Your task to perform on an android device: Check out the top rated books on Goodreads. Image 0: 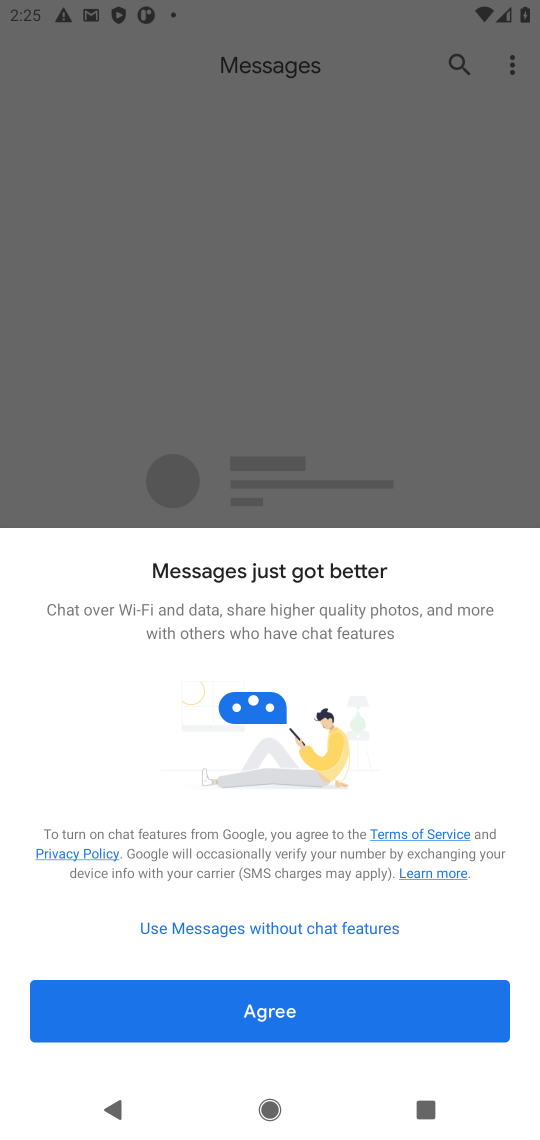
Step 0: press home button
Your task to perform on an android device: Check out the top rated books on Goodreads. Image 1: 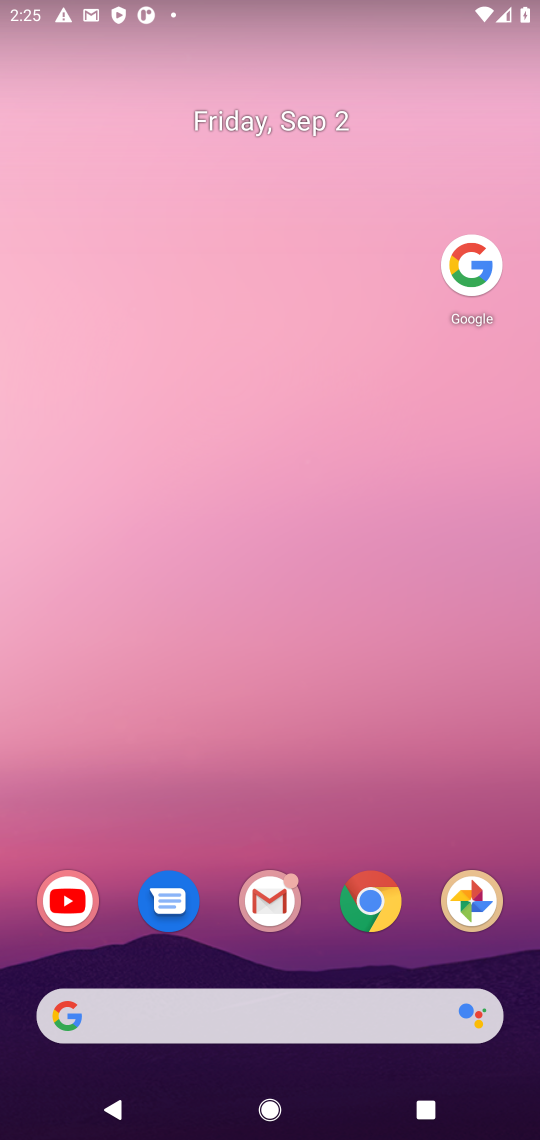
Step 1: click (465, 240)
Your task to perform on an android device: Check out the top rated books on Goodreads. Image 2: 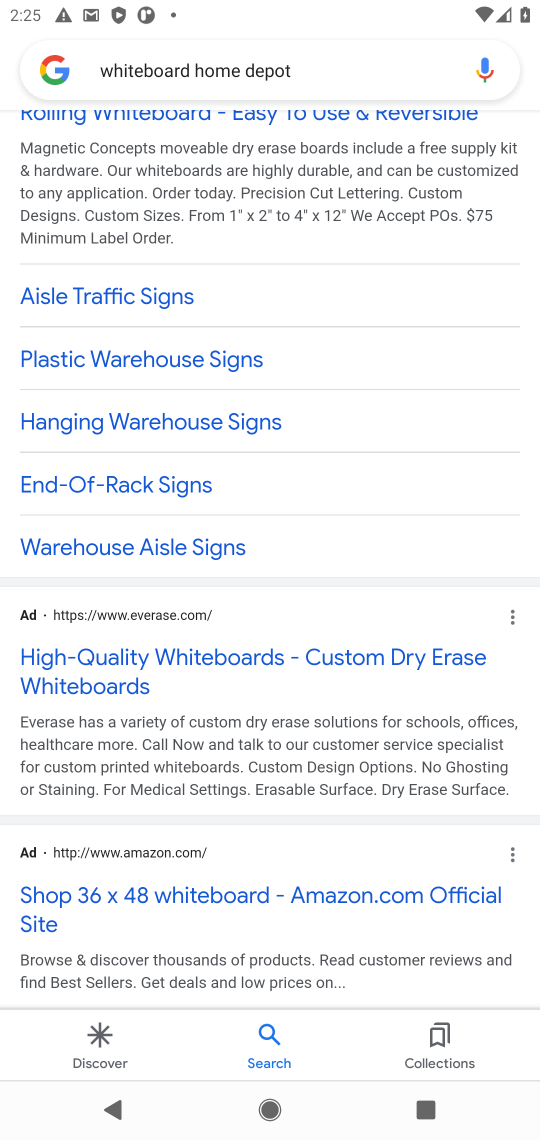
Step 2: click (321, 52)
Your task to perform on an android device: Check out the top rated books on Goodreads. Image 3: 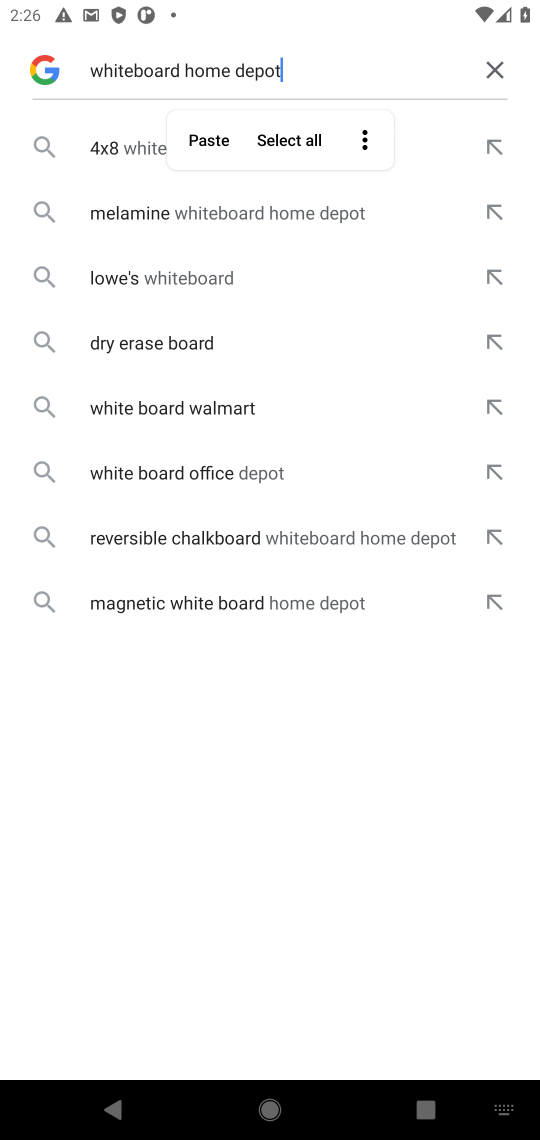
Step 3: click (490, 73)
Your task to perform on an android device: Check out the top rated books on Goodreads. Image 4: 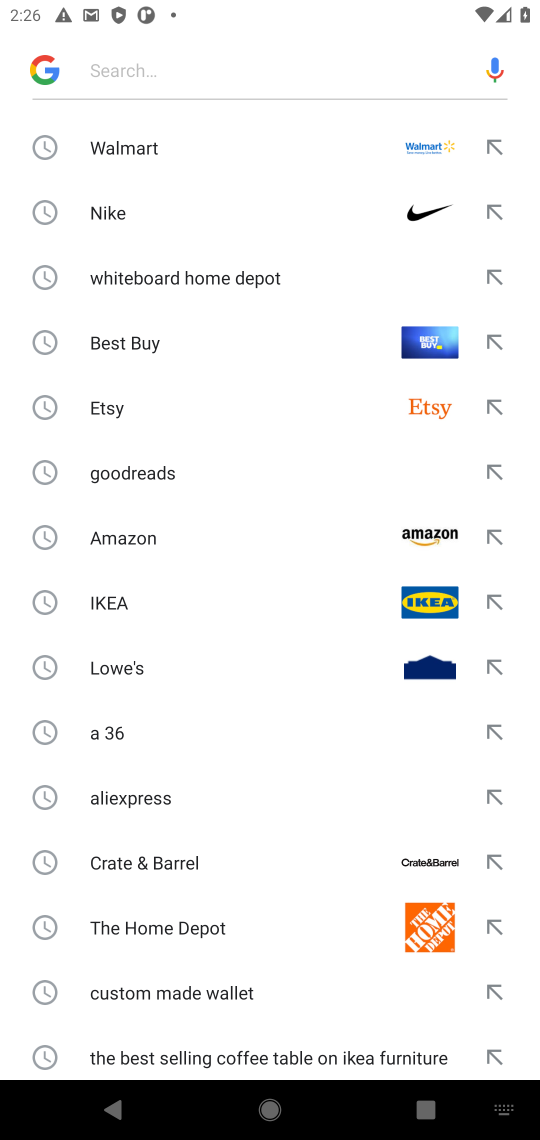
Step 4: click (173, 44)
Your task to perform on an android device: Check out the top rated books on Goodreads. Image 5: 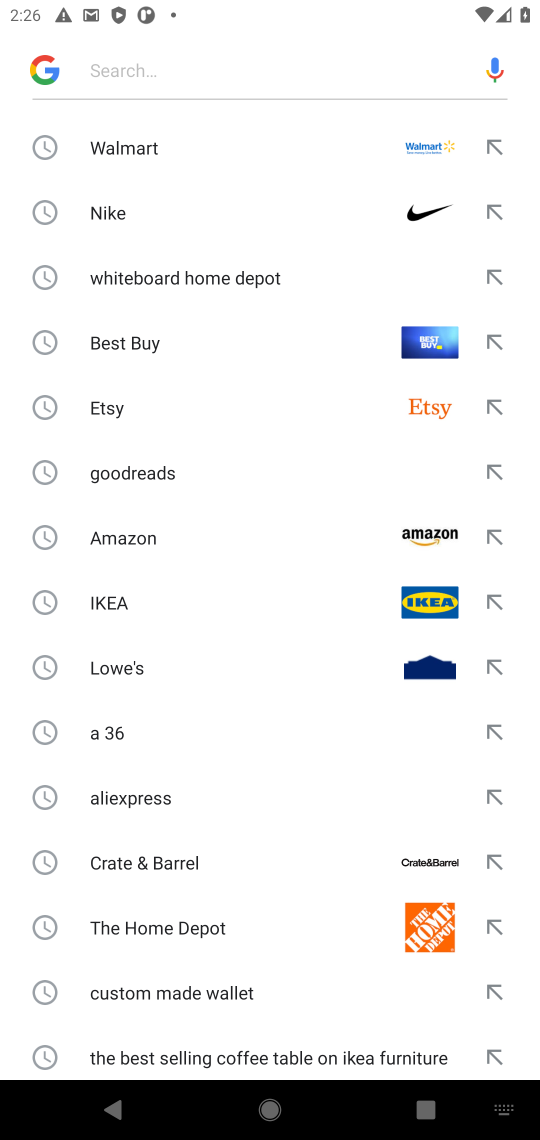
Step 5: type "he top rated books on Goodreads "
Your task to perform on an android device: Check out the top rated books on Goodreads. Image 6: 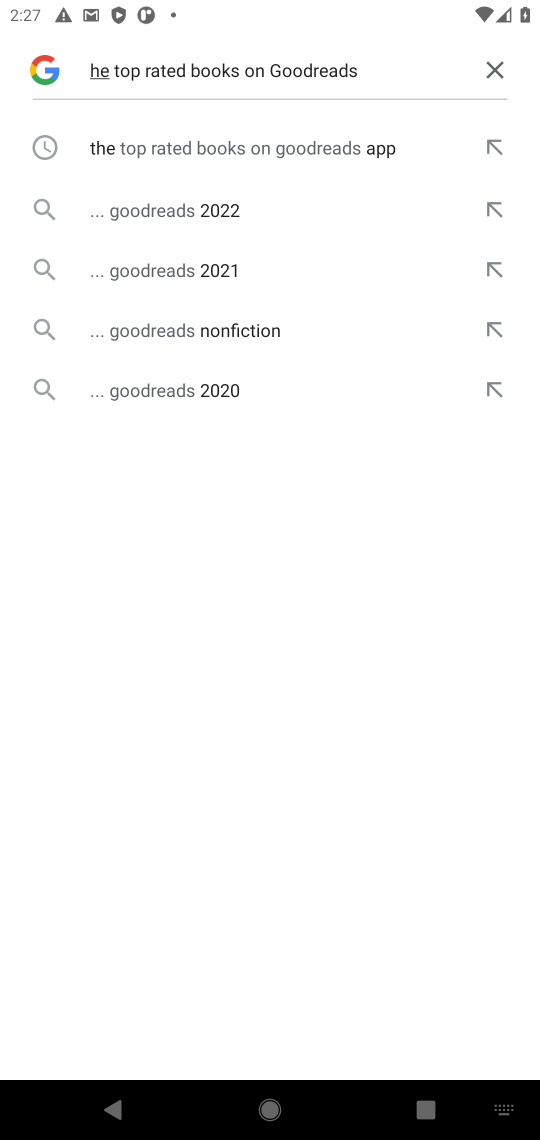
Step 6: click (331, 139)
Your task to perform on an android device: Check out the top rated books on Goodreads. Image 7: 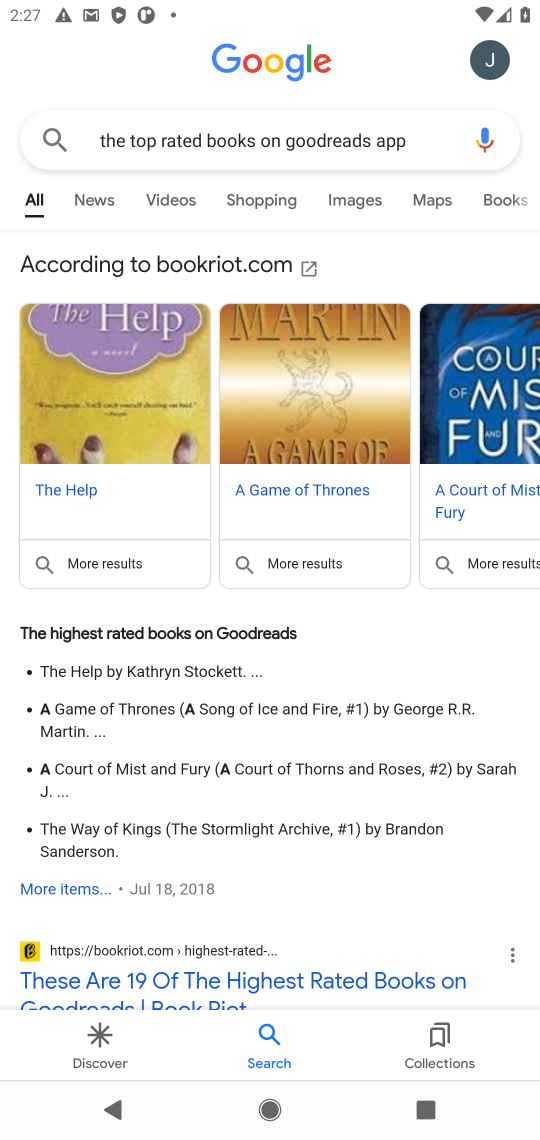
Step 7: task complete